Your task to perform on an android device: Go to display settings Image 0: 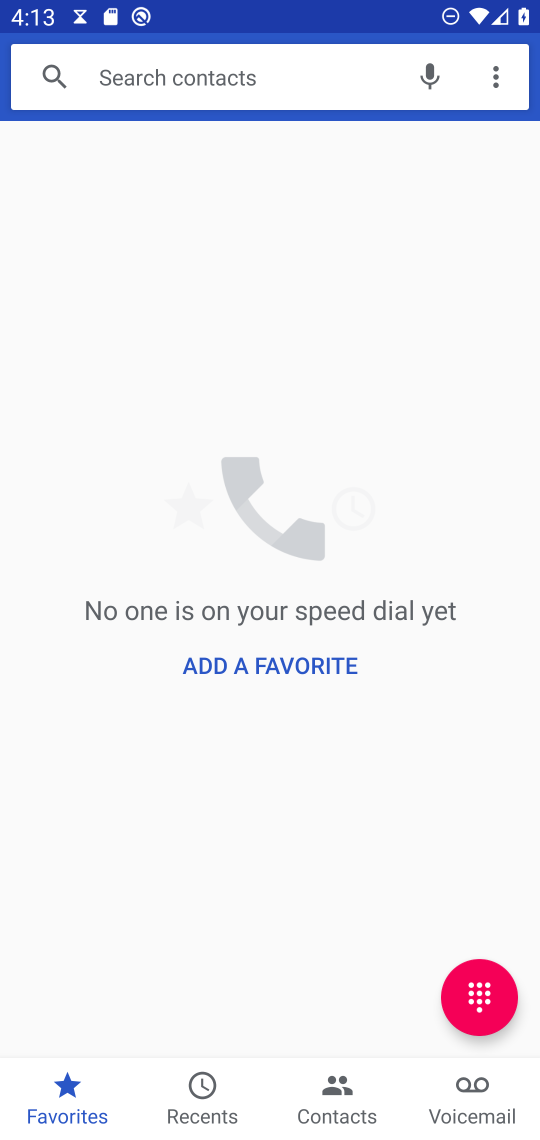
Step 0: press home button
Your task to perform on an android device: Go to display settings Image 1: 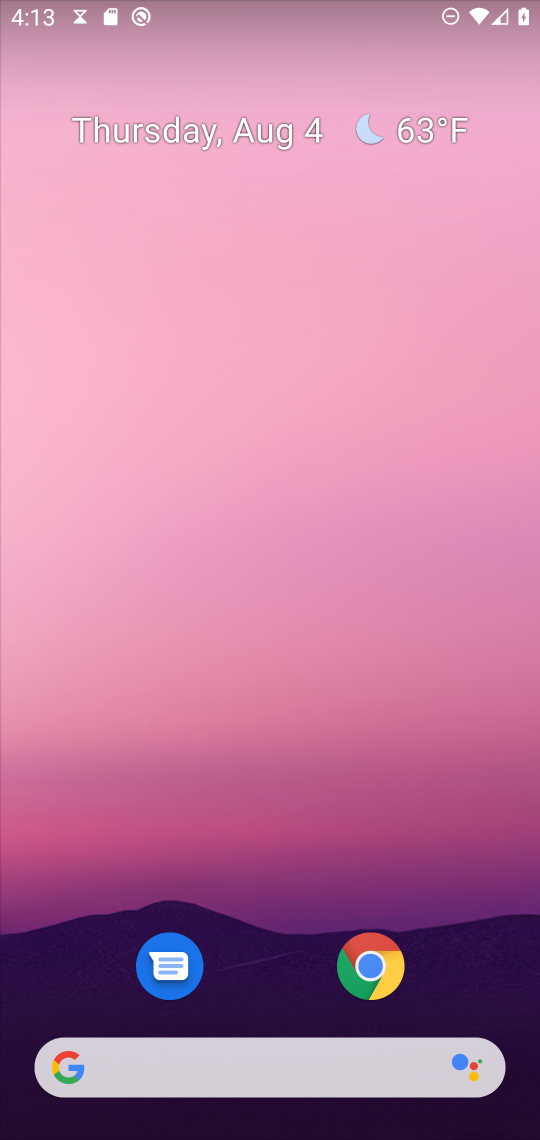
Step 1: drag from (212, 963) to (93, 227)
Your task to perform on an android device: Go to display settings Image 2: 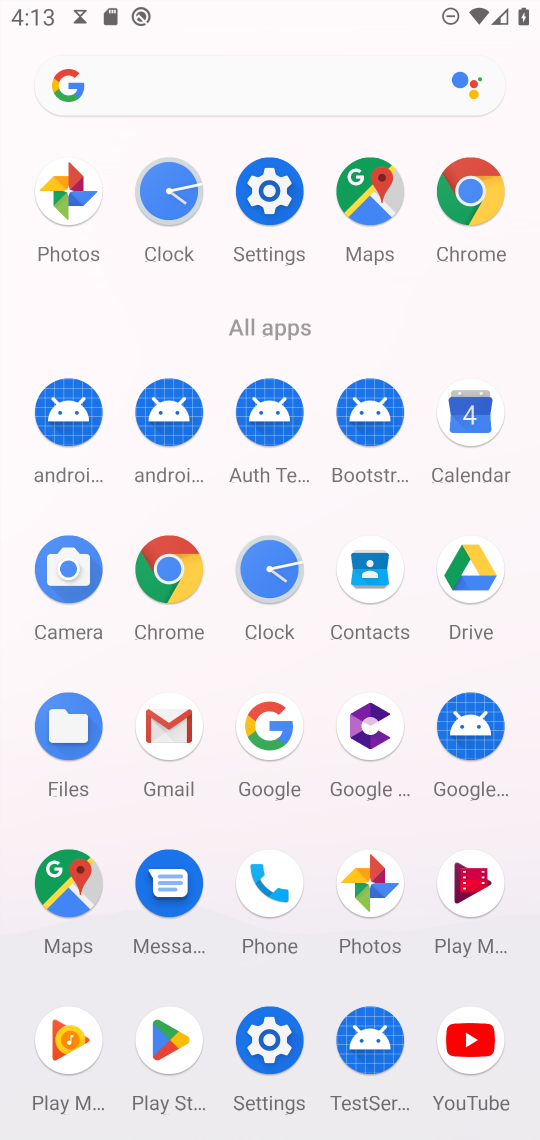
Step 2: click (265, 195)
Your task to perform on an android device: Go to display settings Image 3: 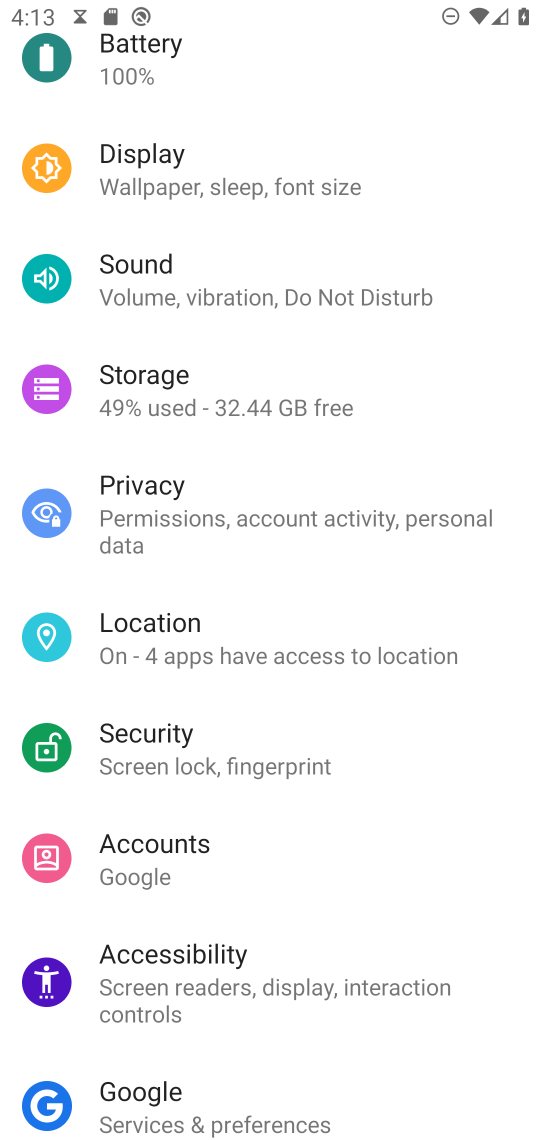
Step 3: click (161, 180)
Your task to perform on an android device: Go to display settings Image 4: 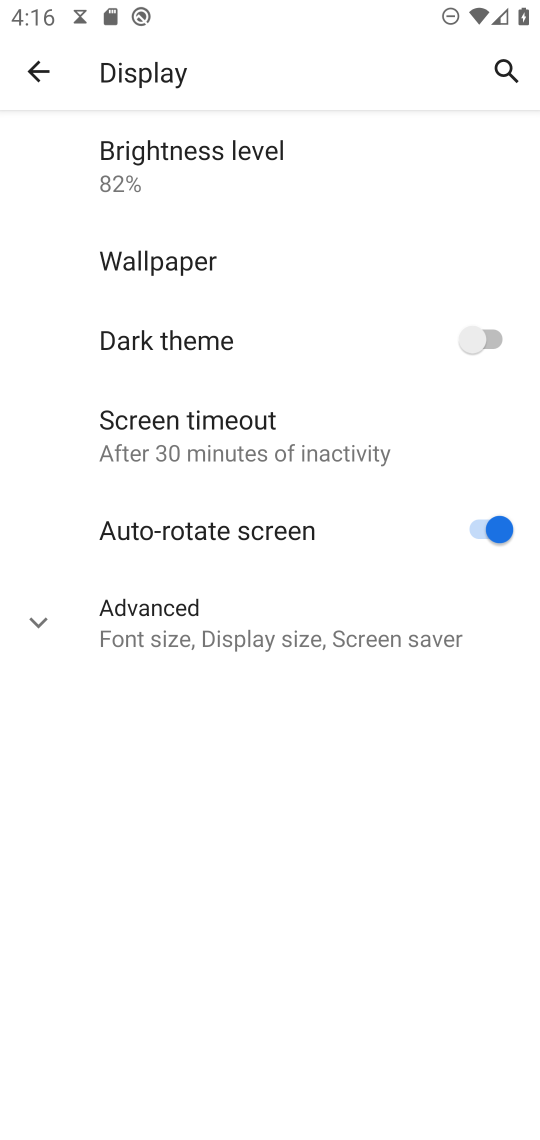
Step 4: task complete